Your task to perform on an android device: change text size in settings app Image 0: 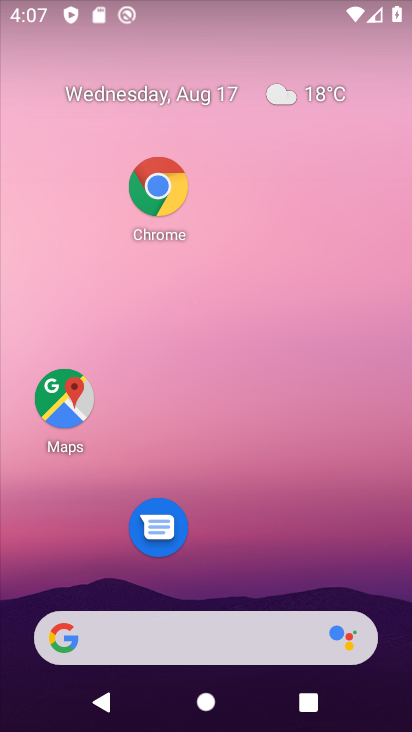
Step 0: drag from (216, 601) to (220, 163)
Your task to perform on an android device: change text size in settings app Image 1: 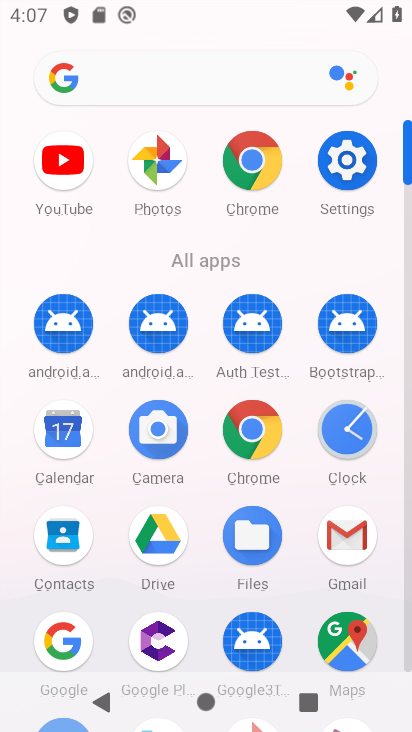
Step 1: click (340, 160)
Your task to perform on an android device: change text size in settings app Image 2: 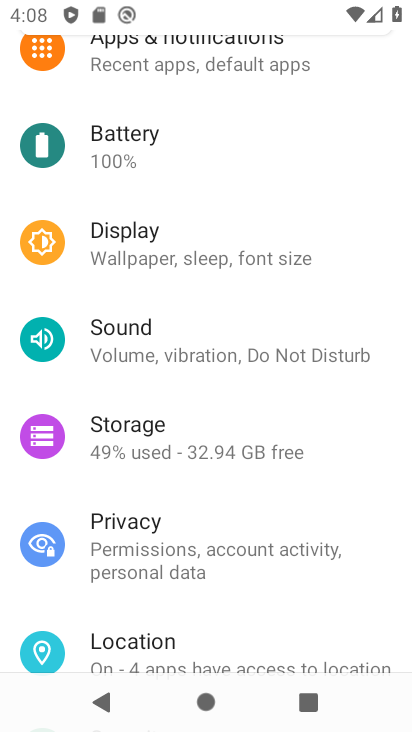
Step 2: click (215, 263)
Your task to perform on an android device: change text size in settings app Image 3: 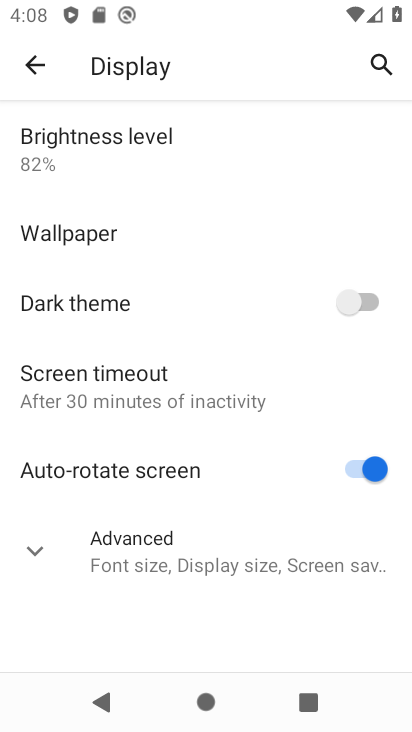
Step 3: click (146, 538)
Your task to perform on an android device: change text size in settings app Image 4: 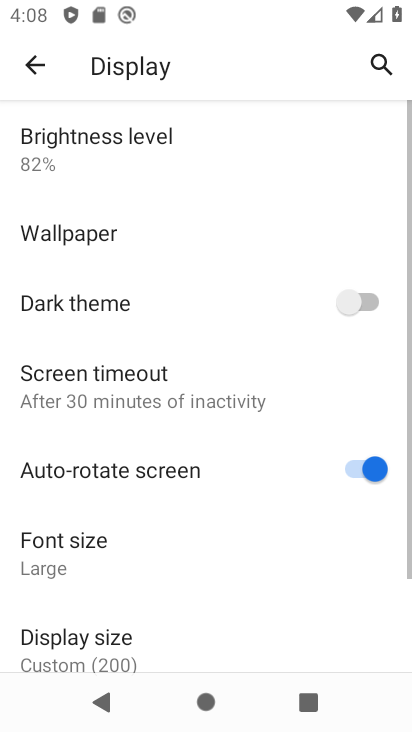
Step 4: click (146, 538)
Your task to perform on an android device: change text size in settings app Image 5: 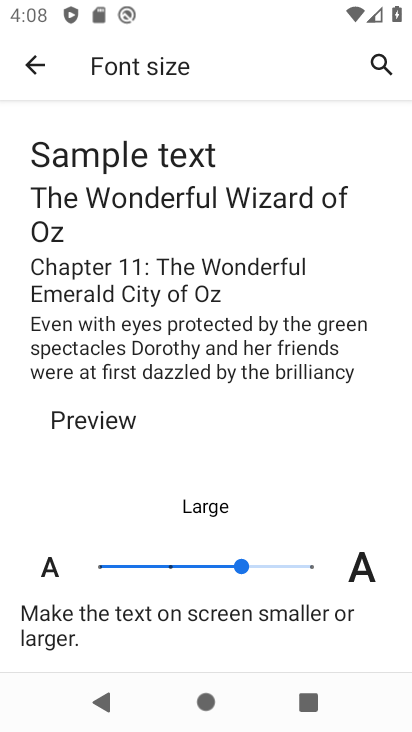
Step 5: click (102, 564)
Your task to perform on an android device: change text size in settings app Image 6: 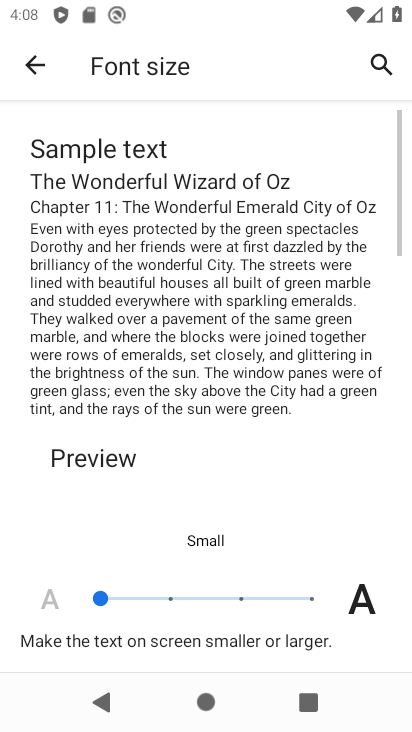
Step 6: task complete